Your task to perform on an android device: see sites visited before in the chrome app Image 0: 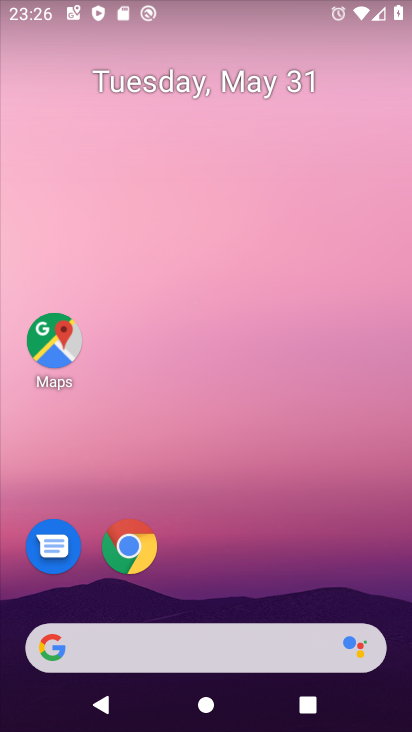
Step 0: click (129, 537)
Your task to perform on an android device: see sites visited before in the chrome app Image 1: 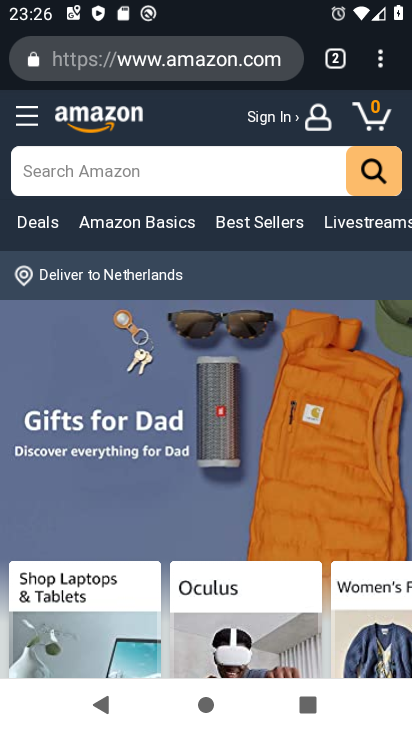
Step 1: click (384, 57)
Your task to perform on an android device: see sites visited before in the chrome app Image 2: 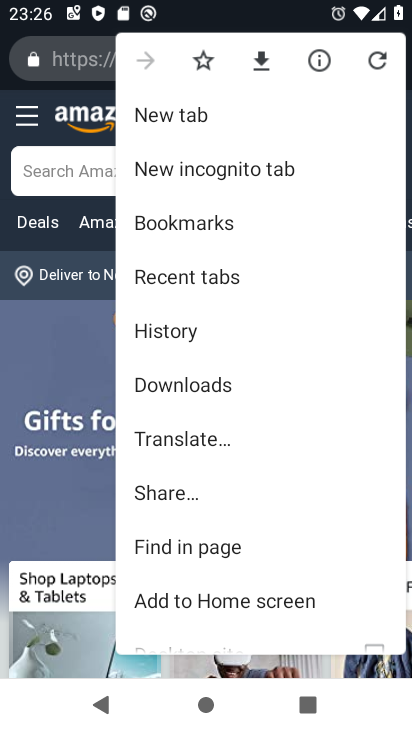
Step 2: click (184, 335)
Your task to perform on an android device: see sites visited before in the chrome app Image 3: 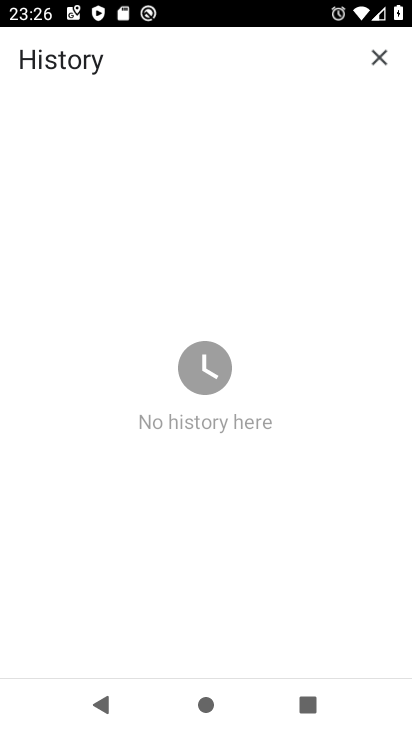
Step 3: task complete